Your task to perform on an android device: change text size in settings app Image 0: 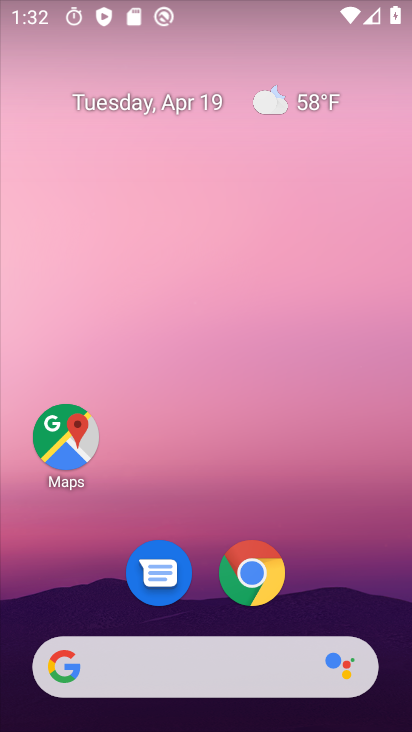
Step 0: drag from (342, 369) to (296, 80)
Your task to perform on an android device: change text size in settings app Image 1: 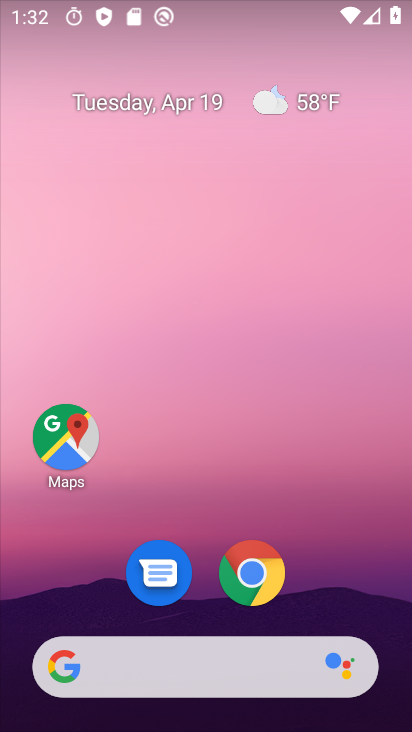
Step 1: drag from (336, 419) to (306, 65)
Your task to perform on an android device: change text size in settings app Image 2: 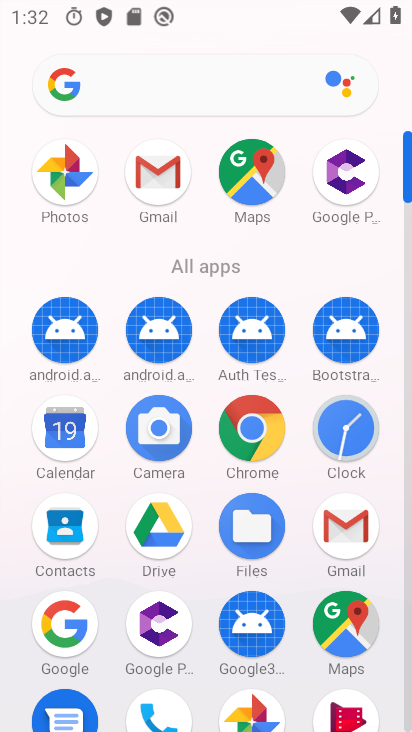
Step 2: drag from (385, 491) to (306, 181)
Your task to perform on an android device: change text size in settings app Image 3: 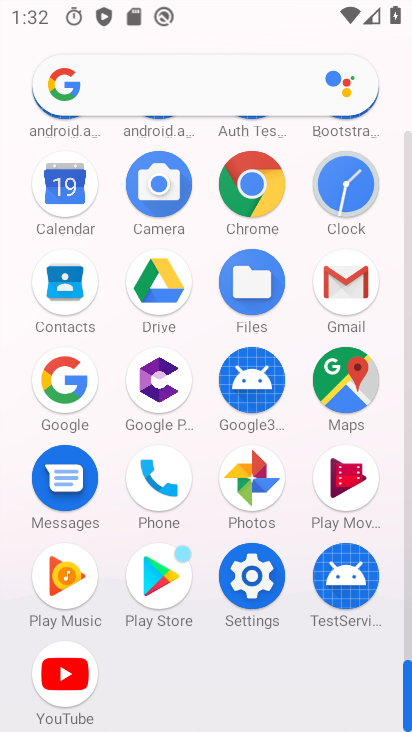
Step 3: click (250, 569)
Your task to perform on an android device: change text size in settings app Image 4: 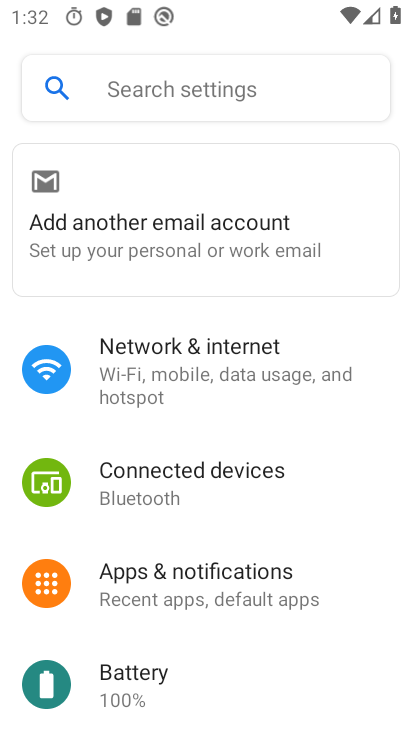
Step 4: drag from (172, 614) to (141, 228)
Your task to perform on an android device: change text size in settings app Image 5: 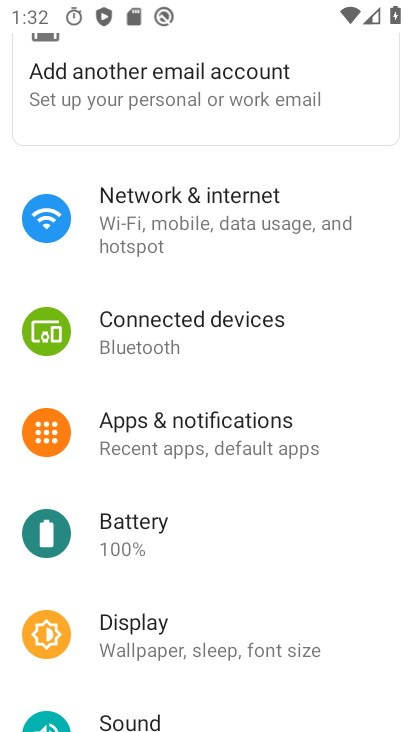
Step 5: drag from (200, 491) to (129, 63)
Your task to perform on an android device: change text size in settings app Image 6: 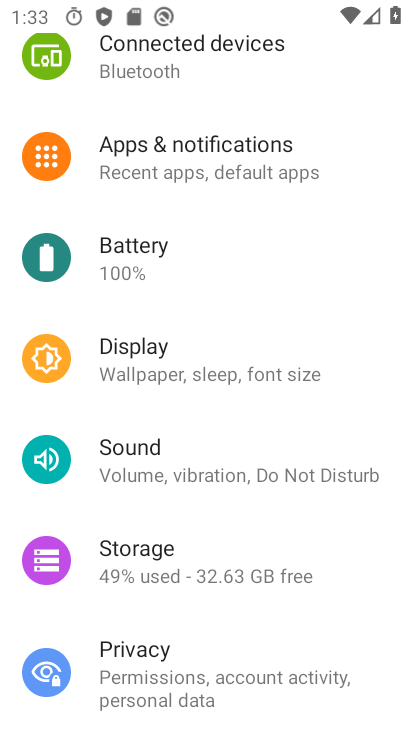
Step 6: click (205, 377)
Your task to perform on an android device: change text size in settings app Image 7: 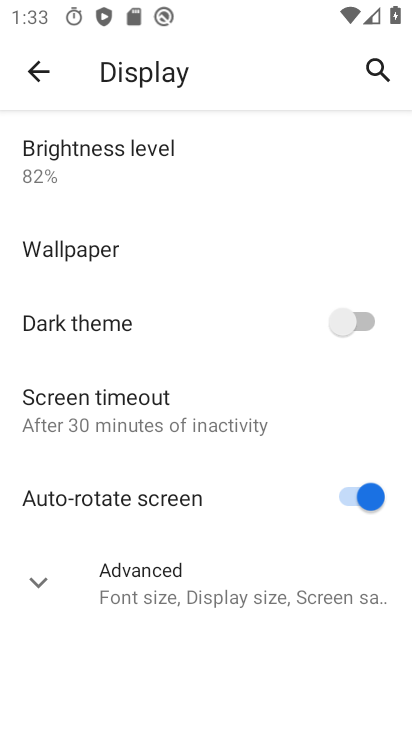
Step 7: click (175, 590)
Your task to perform on an android device: change text size in settings app Image 8: 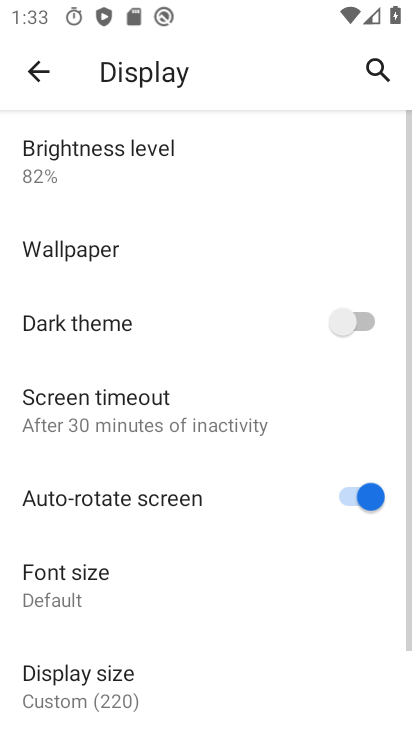
Step 8: click (47, 582)
Your task to perform on an android device: change text size in settings app Image 9: 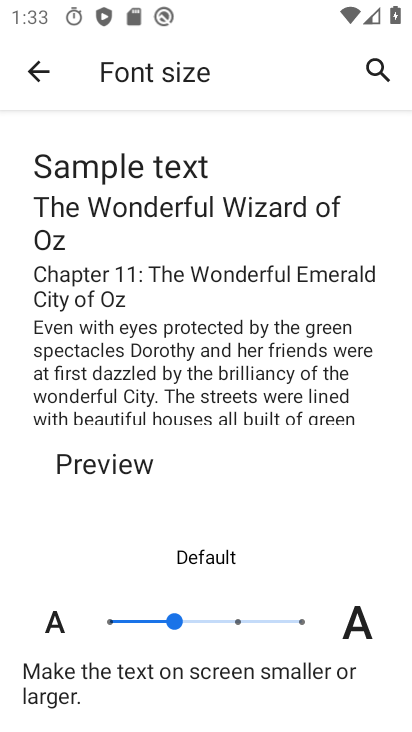
Step 9: click (208, 620)
Your task to perform on an android device: change text size in settings app Image 10: 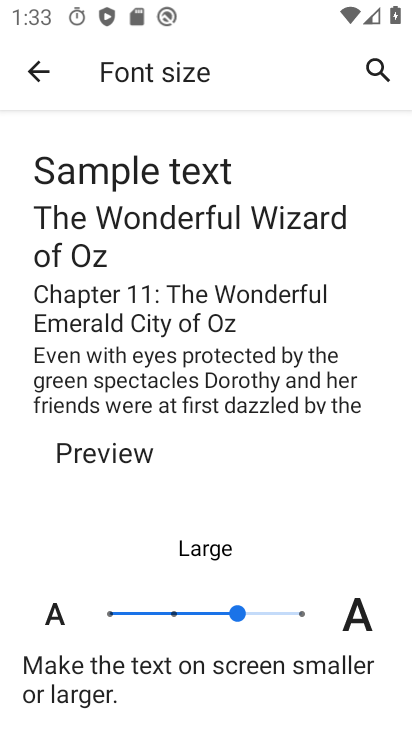
Step 10: task complete